Your task to perform on an android device: turn off notifications in google photos Image 0: 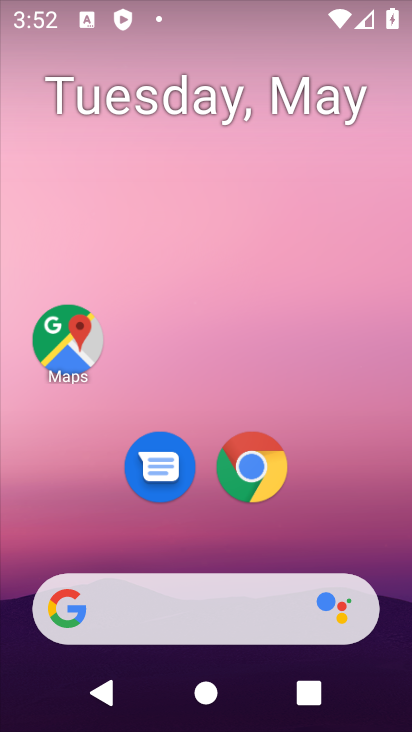
Step 0: task complete